Your task to perform on an android device: change notifications settings Image 0: 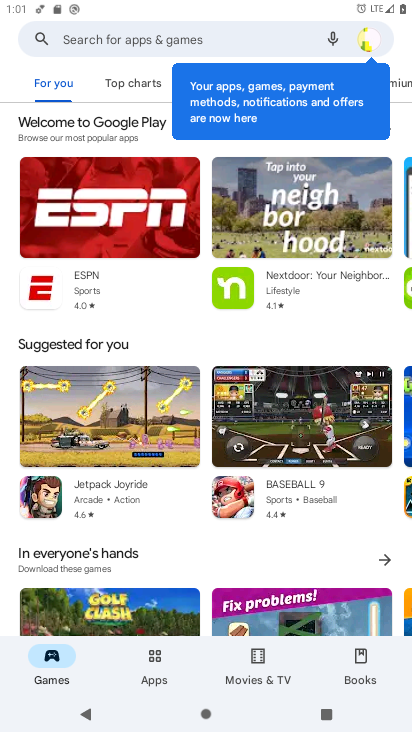
Step 0: press home button
Your task to perform on an android device: change notifications settings Image 1: 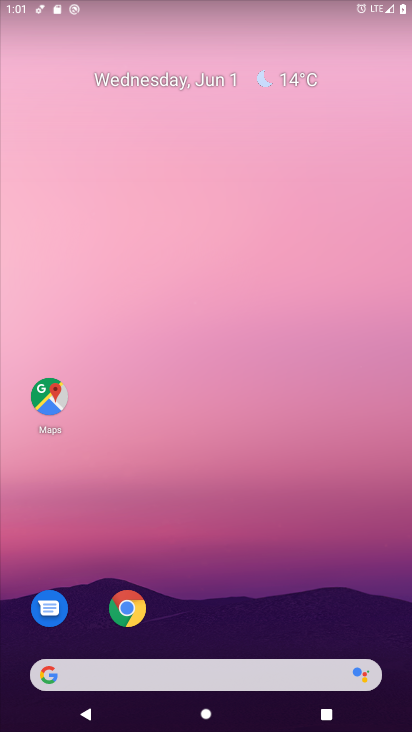
Step 1: drag from (265, 579) to (295, 168)
Your task to perform on an android device: change notifications settings Image 2: 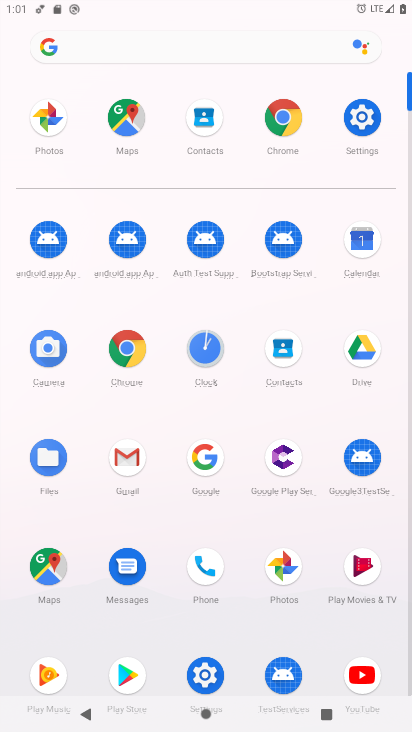
Step 2: click (366, 129)
Your task to perform on an android device: change notifications settings Image 3: 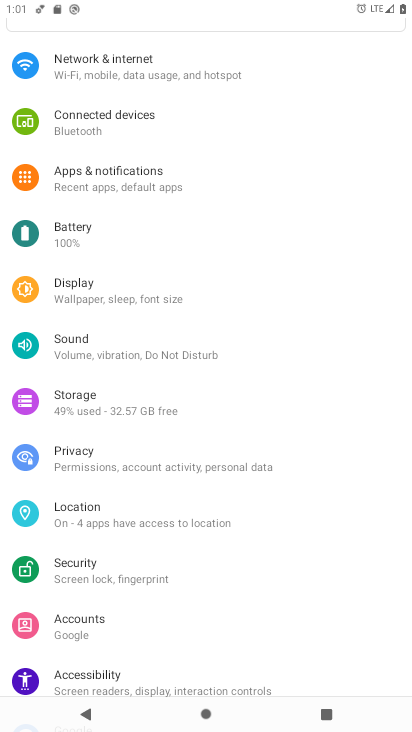
Step 3: click (156, 176)
Your task to perform on an android device: change notifications settings Image 4: 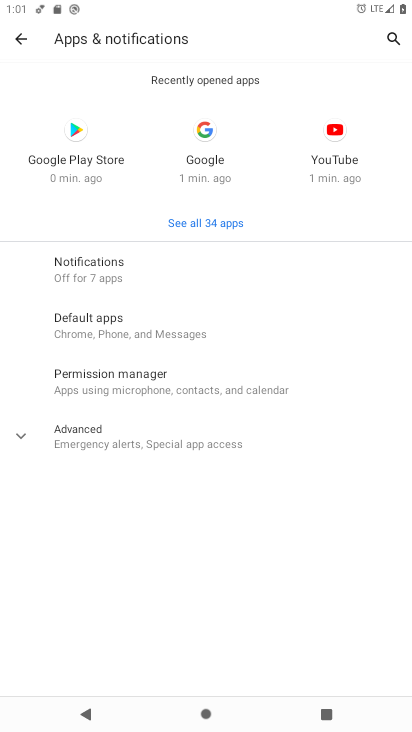
Step 4: click (115, 275)
Your task to perform on an android device: change notifications settings Image 5: 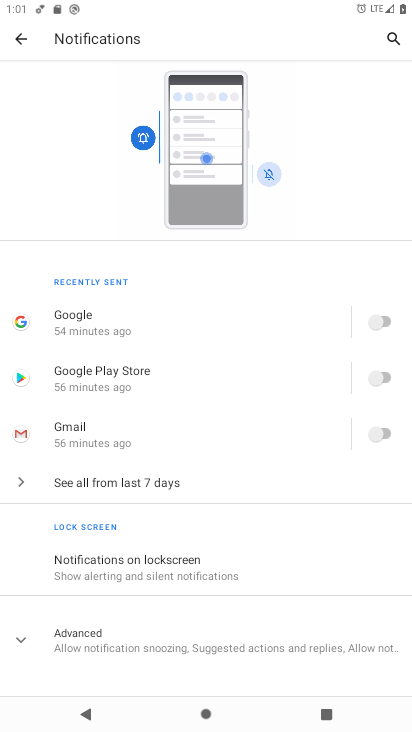
Step 5: drag from (203, 594) to (221, 435)
Your task to perform on an android device: change notifications settings Image 6: 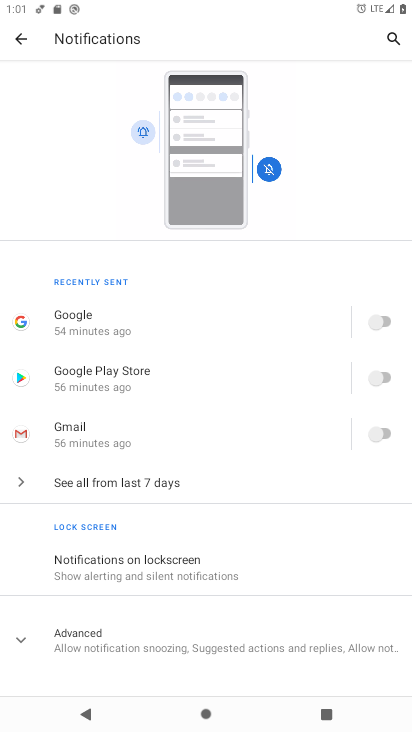
Step 6: click (111, 493)
Your task to perform on an android device: change notifications settings Image 7: 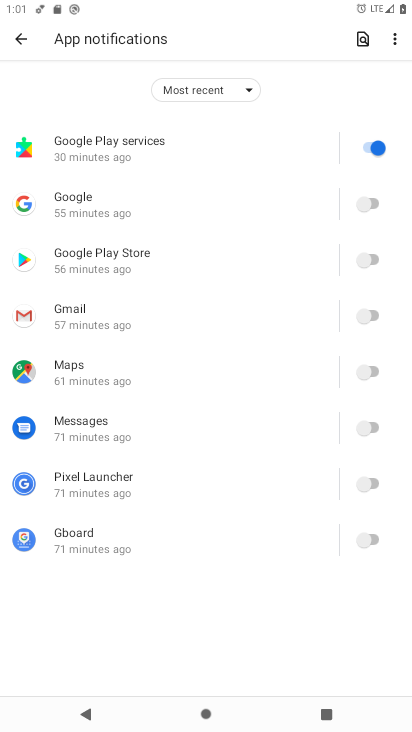
Step 7: click (355, 199)
Your task to perform on an android device: change notifications settings Image 8: 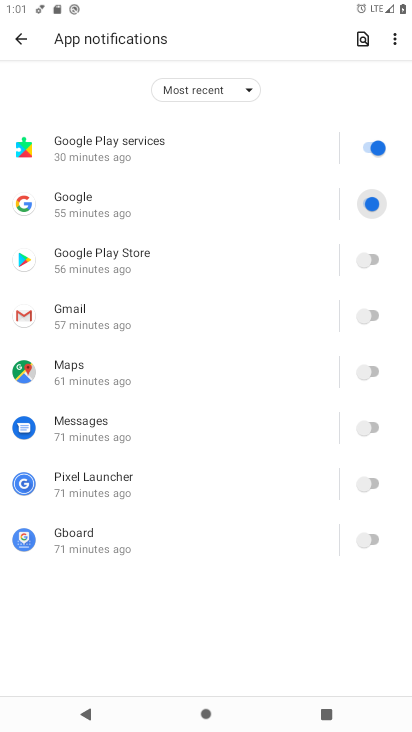
Step 8: click (363, 247)
Your task to perform on an android device: change notifications settings Image 9: 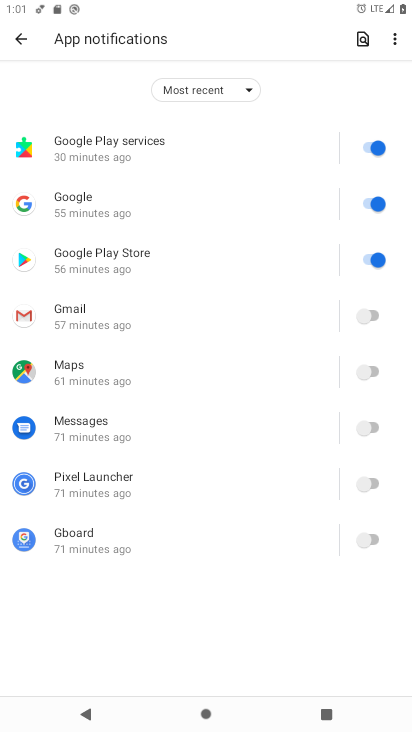
Step 9: click (356, 331)
Your task to perform on an android device: change notifications settings Image 10: 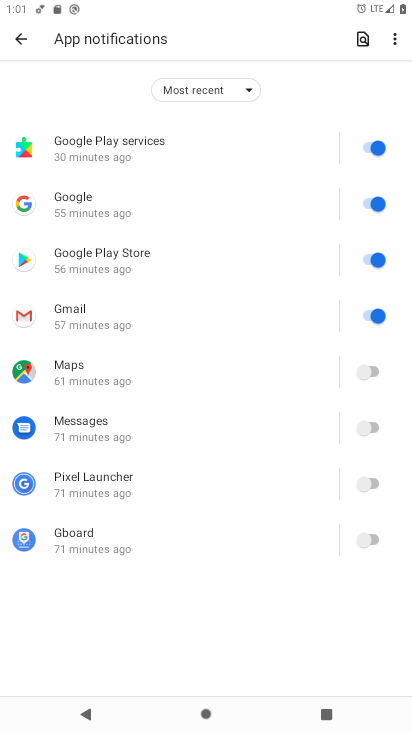
Step 10: click (375, 386)
Your task to perform on an android device: change notifications settings Image 11: 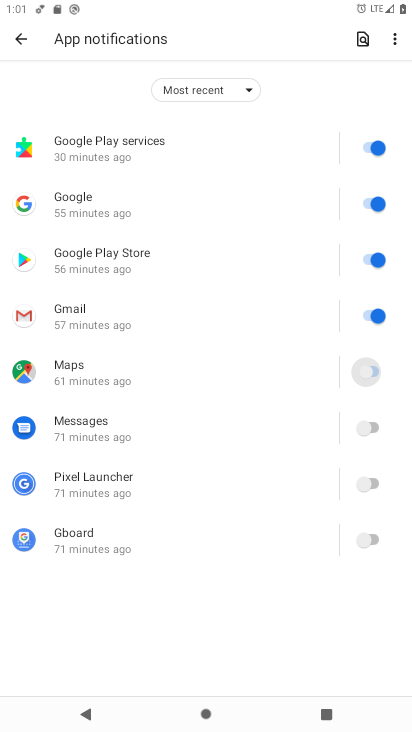
Step 11: click (377, 426)
Your task to perform on an android device: change notifications settings Image 12: 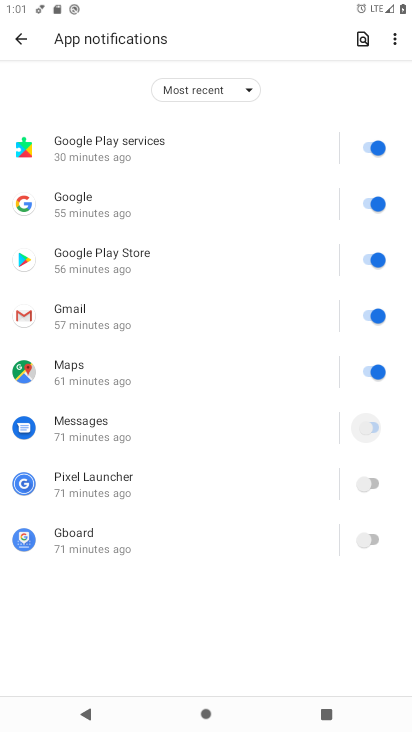
Step 12: click (372, 484)
Your task to perform on an android device: change notifications settings Image 13: 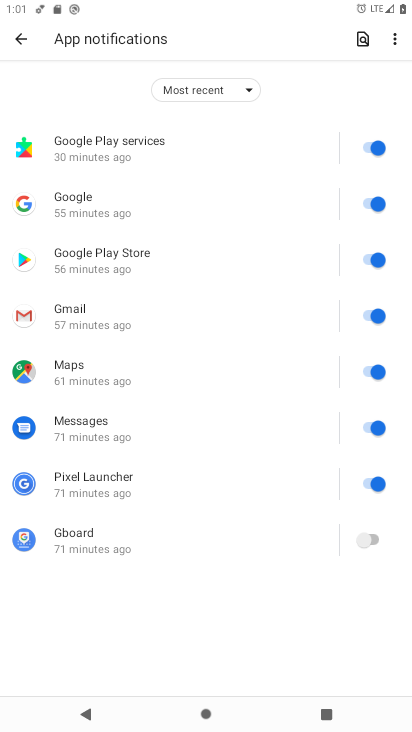
Step 13: click (363, 571)
Your task to perform on an android device: change notifications settings Image 14: 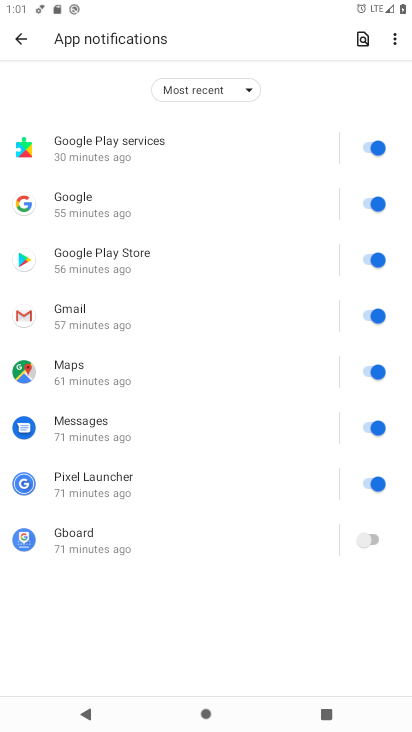
Step 14: click (351, 532)
Your task to perform on an android device: change notifications settings Image 15: 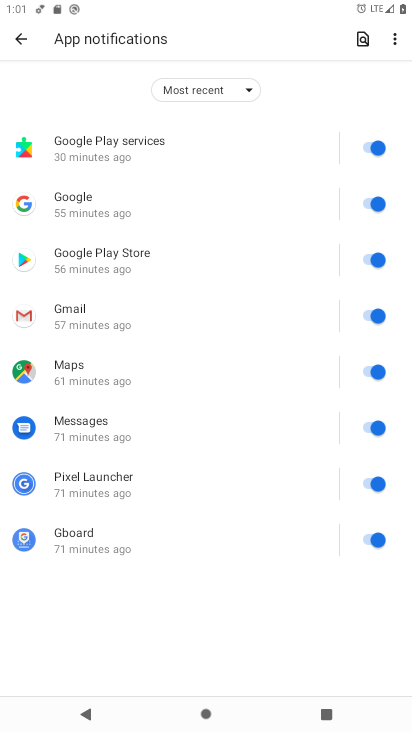
Step 15: task complete